Your task to perform on an android device: clear all cookies in the chrome app Image 0: 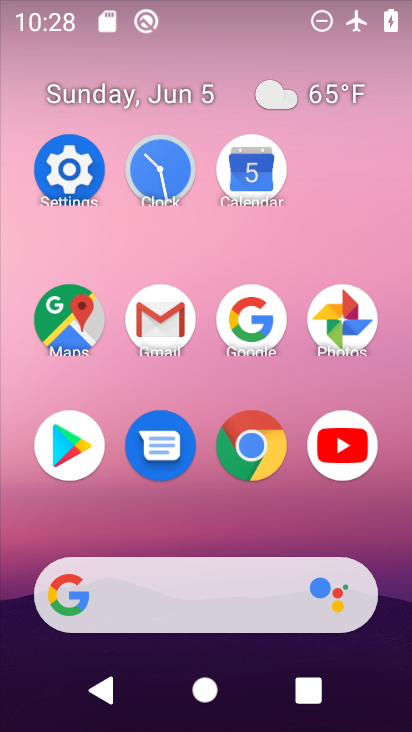
Step 0: click (260, 443)
Your task to perform on an android device: clear all cookies in the chrome app Image 1: 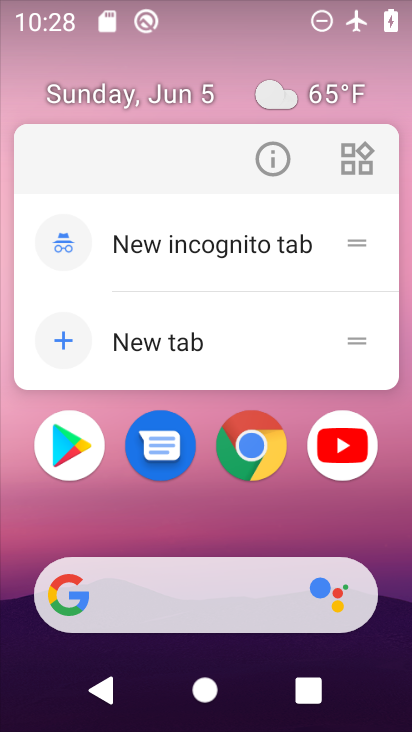
Step 1: click (267, 477)
Your task to perform on an android device: clear all cookies in the chrome app Image 2: 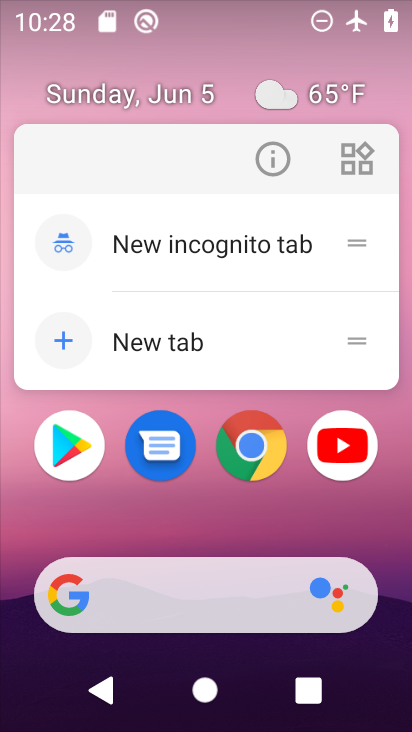
Step 2: click (270, 447)
Your task to perform on an android device: clear all cookies in the chrome app Image 3: 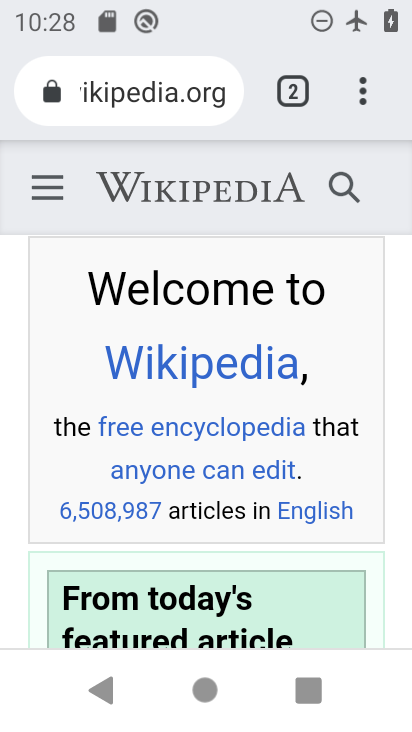
Step 3: click (378, 82)
Your task to perform on an android device: clear all cookies in the chrome app Image 4: 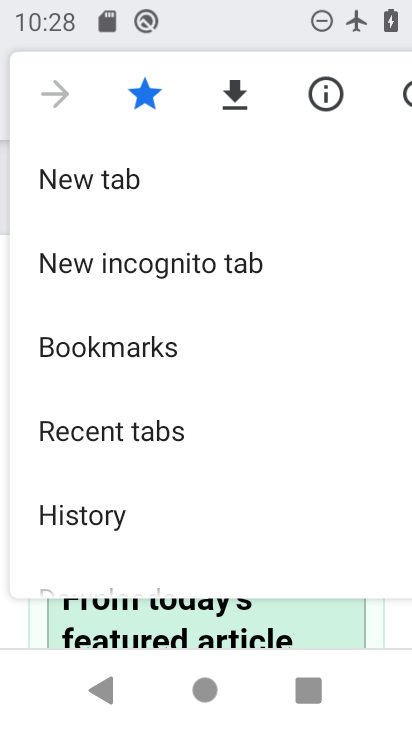
Step 4: drag from (217, 282) to (225, 119)
Your task to perform on an android device: clear all cookies in the chrome app Image 5: 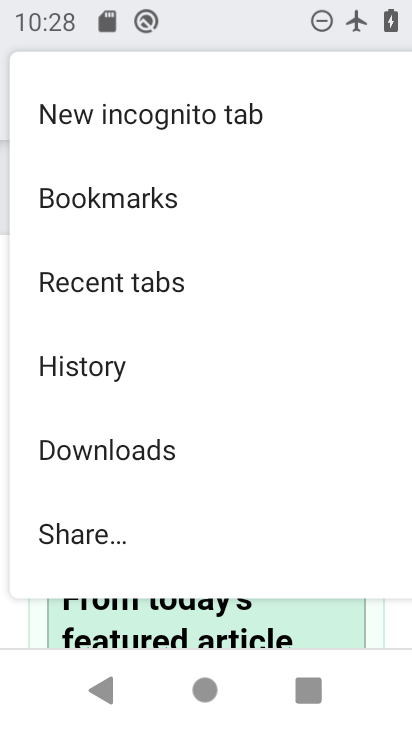
Step 5: drag from (179, 480) to (186, 171)
Your task to perform on an android device: clear all cookies in the chrome app Image 6: 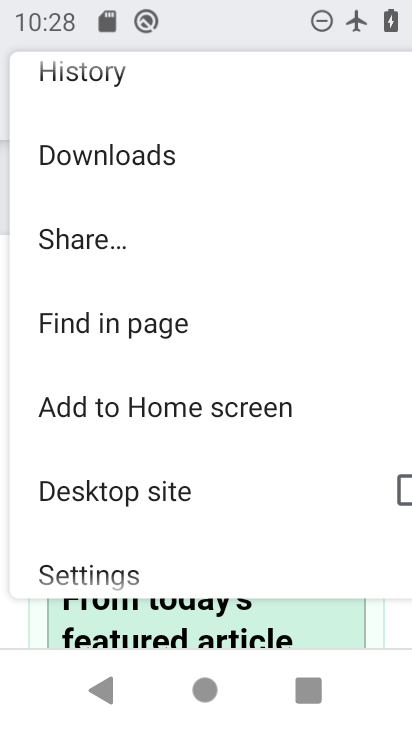
Step 6: click (156, 602)
Your task to perform on an android device: clear all cookies in the chrome app Image 7: 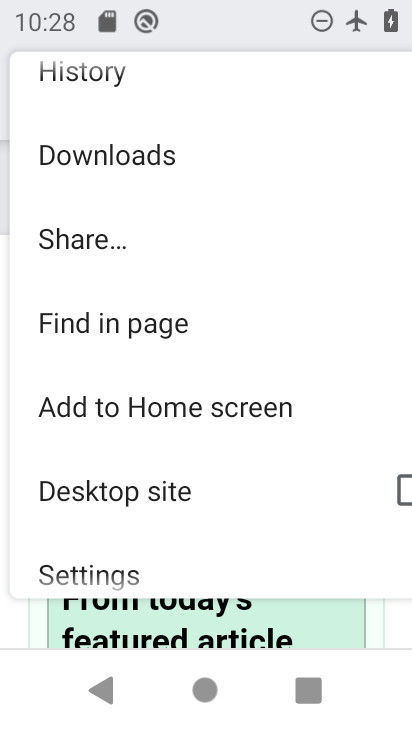
Step 7: click (152, 584)
Your task to perform on an android device: clear all cookies in the chrome app Image 8: 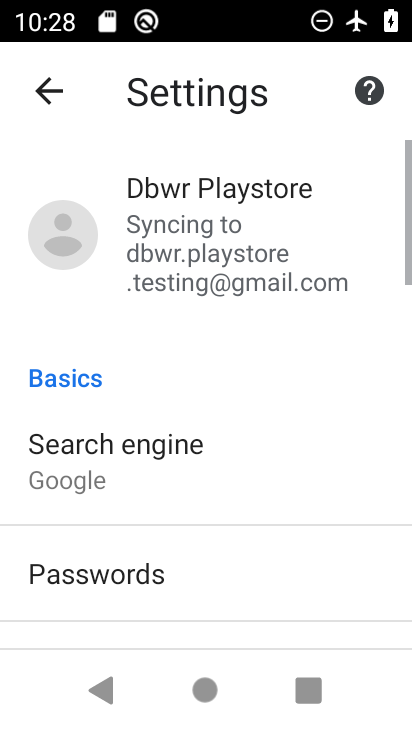
Step 8: drag from (158, 455) to (190, 142)
Your task to perform on an android device: clear all cookies in the chrome app Image 9: 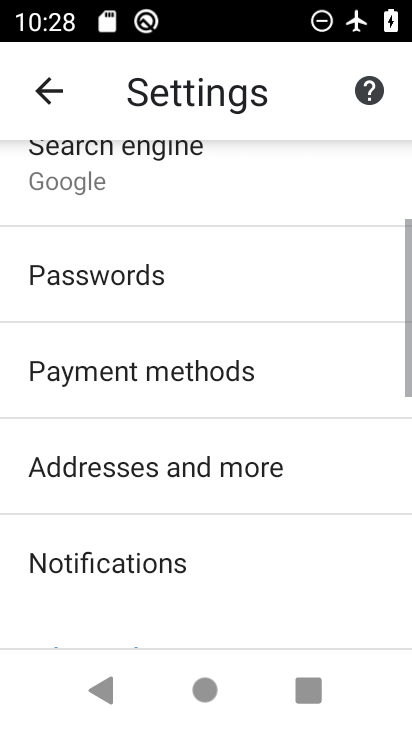
Step 9: drag from (199, 417) to (220, 163)
Your task to perform on an android device: clear all cookies in the chrome app Image 10: 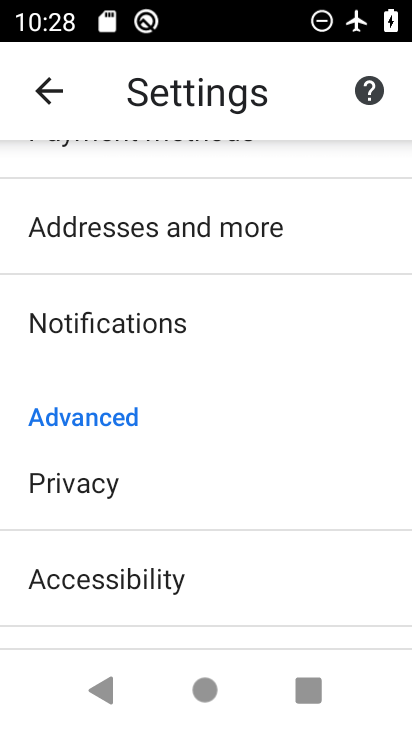
Step 10: click (203, 465)
Your task to perform on an android device: clear all cookies in the chrome app Image 11: 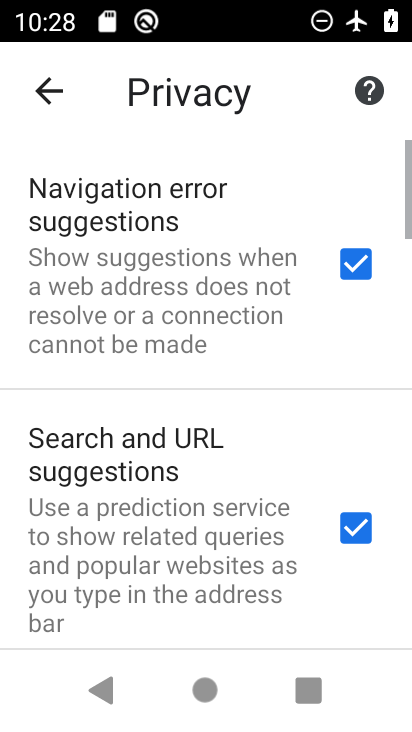
Step 11: drag from (203, 465) to (225, 83)
Your task to perform on an android device: clear all cookies in the chrome app Image 12: 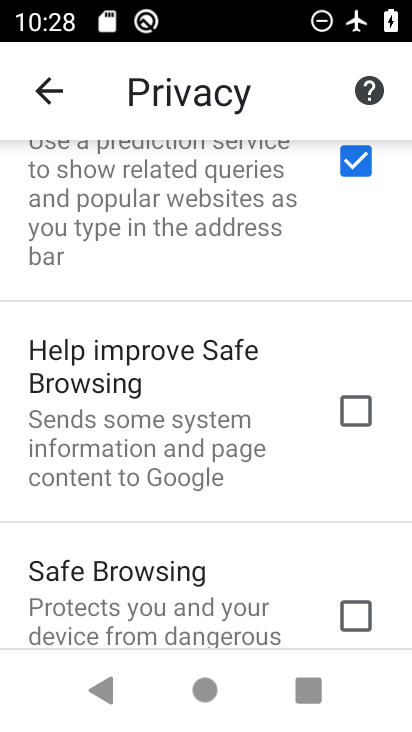
Step 12: drag from (242, 603) to (270, 244)
Your task to perform on an android device: clear all cookies in the chrome app Image 13: 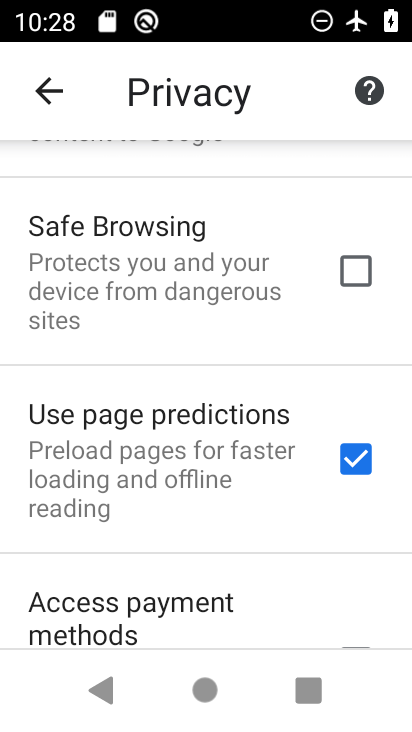
Step 13: drag from (287, 500) to (253, 50)
Your task to perform on an android device: clear all cookies in the chrome app Image 14: 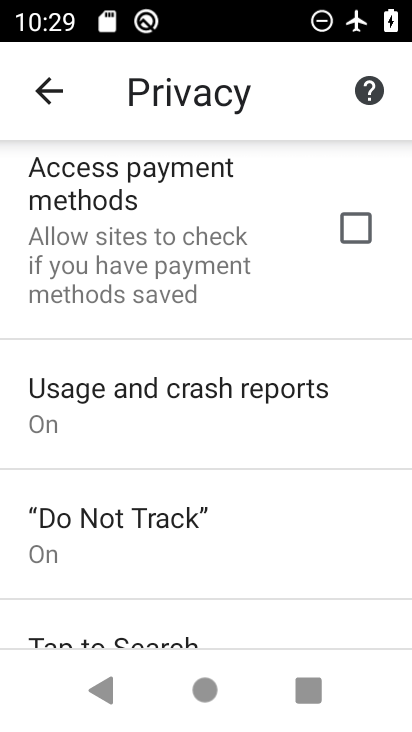
Step 14: drag from (265, 539) to (281, 233)
Your task to perform on an android device: clear all cookies in the chrome app Image 15: 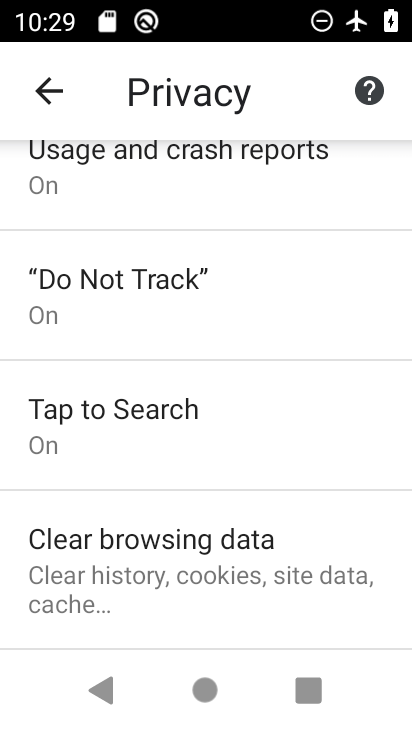
Step 15: click (246, 593)
Your task to perform on an android device: clear all cookies in the chrome app Image 16: 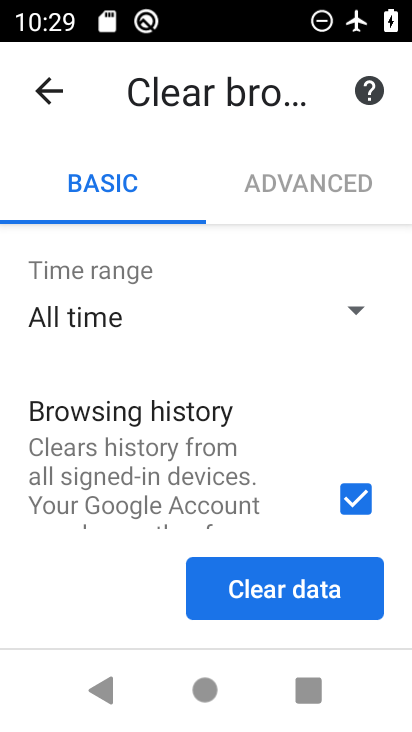
Step 16: drag from (238, 489) to (295, 208)
Your task to perform on an android device: clear all cookies in the chrome app Image 17: 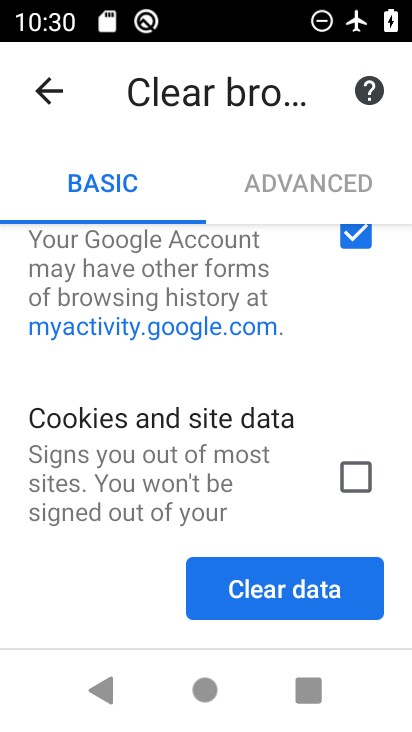
Step 17: drag from (250, 521) to (261, 235)
Your task to perform on an android device: clear all cookies in the chrome app Image 18: 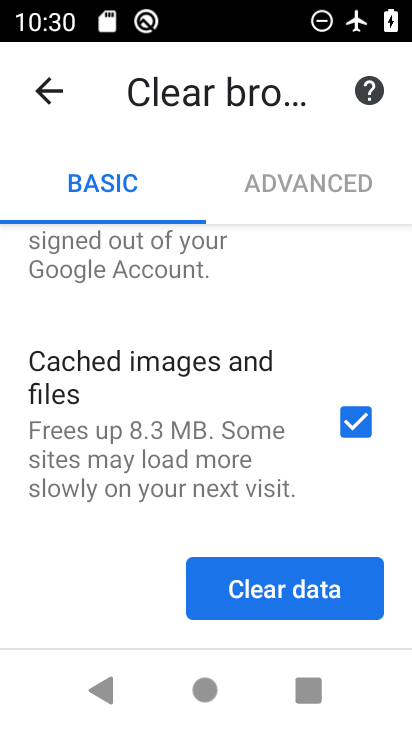
Step 18: drag from (266, 265) to (261, 533)
Your task to perform on an android device: clear all cookies in the chrome app Image 19: 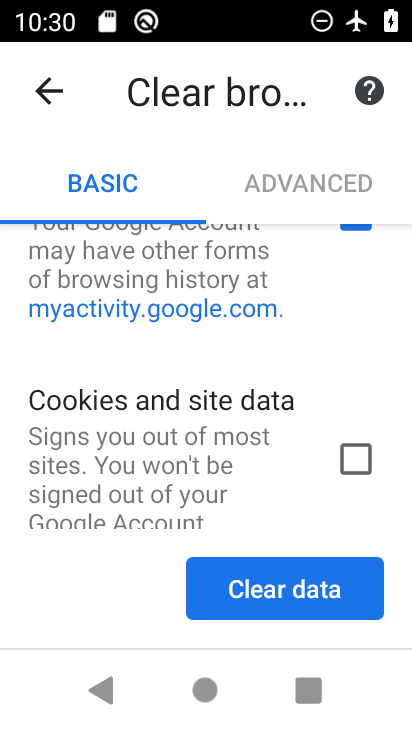
Step 19: click (344, 448)
Your task to perform on an android device: clear all cookies in the chrome app Image 20: 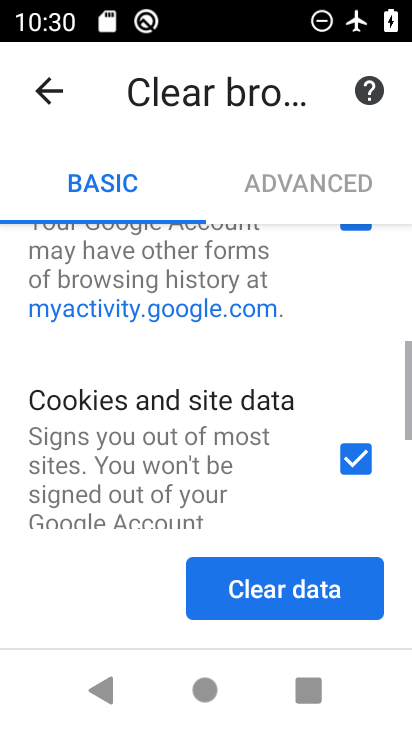
Step 20: click (324, 595)
Your task to perform on an android device: clear all cookies in the chrome app Image 21: 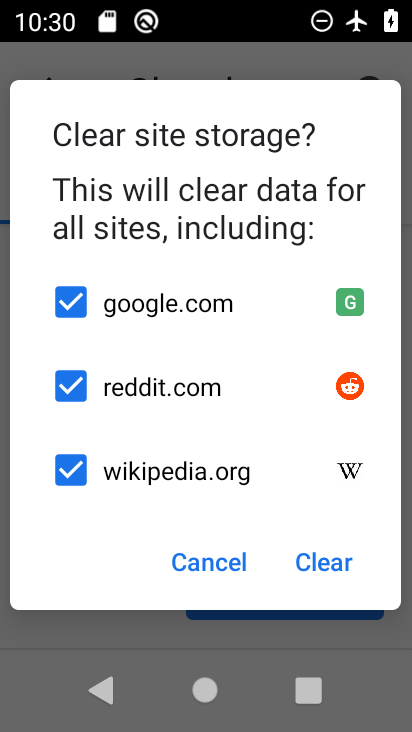
Step 21: click (327, 560)
Your task to perform on an android device: clear all cookies in the chrome app Image 22: 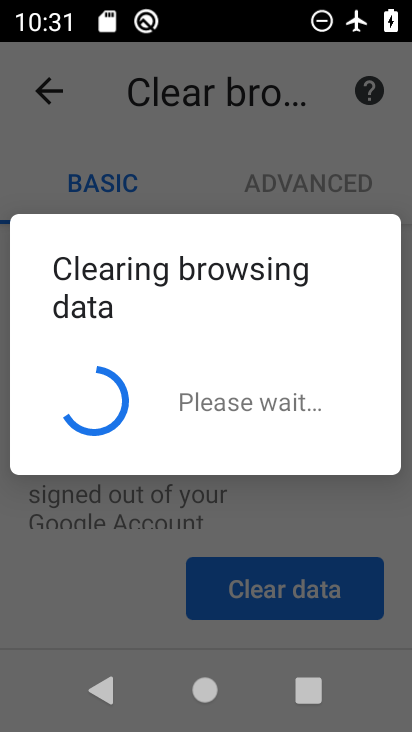
Step 22: task complete